Your task to perform on an android device: What is the news today? Image 0: 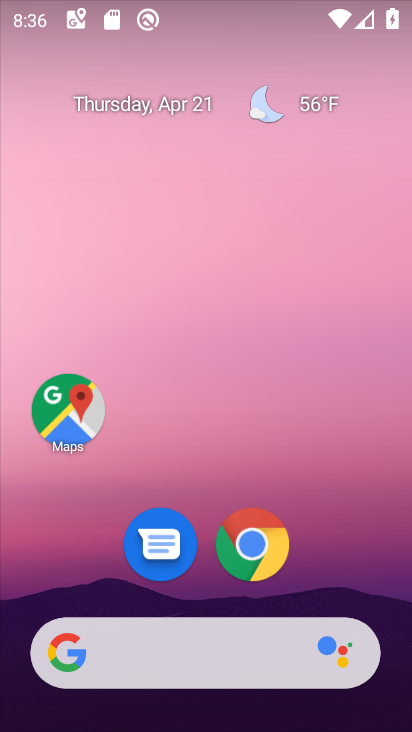
Step 0: drag from (11, 323) to (411, 368)
Your task to perform on an android device: What is the news today? Image 1: 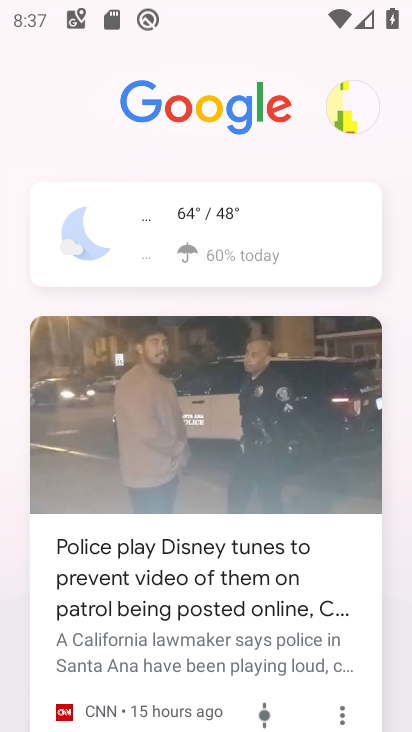
Step 1: task complete